Your task to perform on an android device: change the clock display to show seconds Image 0: 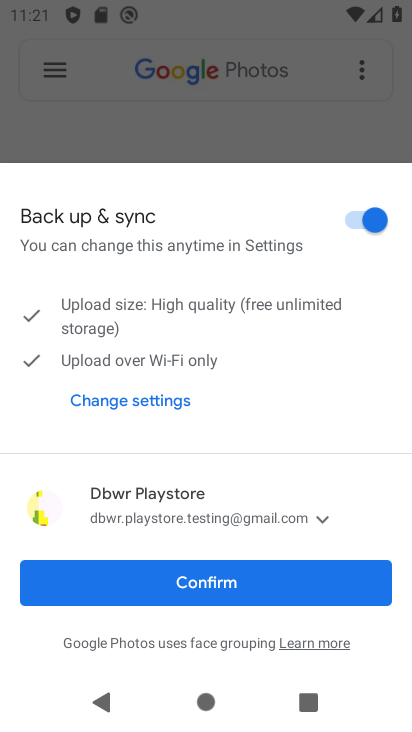
Step 0: press home button
Your task to perform on an android device: change the clock display to show seconds Image 1: 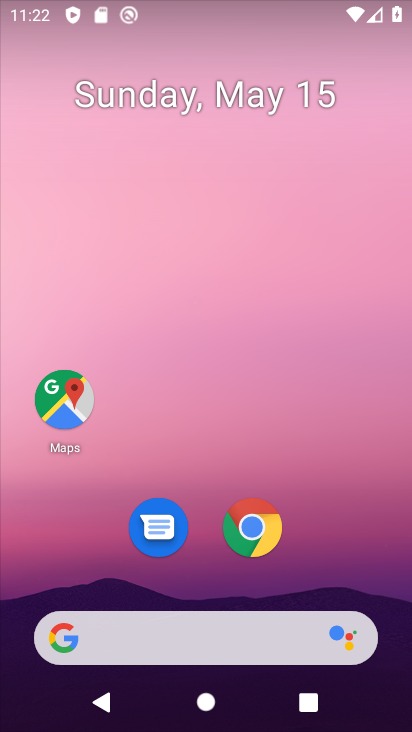
Step 1: drag from (360, 556) to (371, 167)
Your task to perform on an android device: change the clock display to show seconds Image 2: 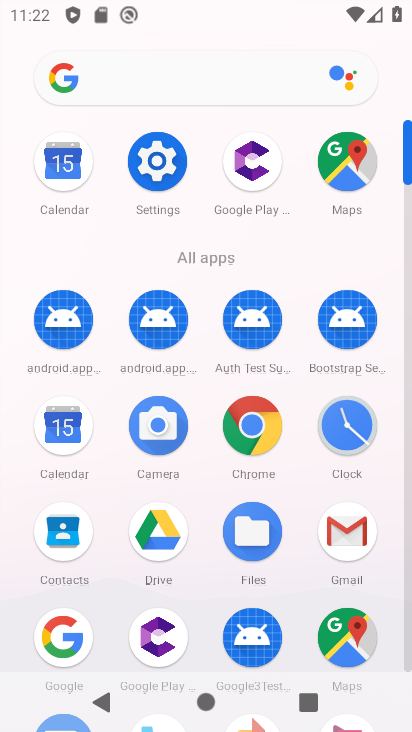
Step 2: click (350, 440)
Your task to perform on an android device: change the clock display to show seconds Image 3: 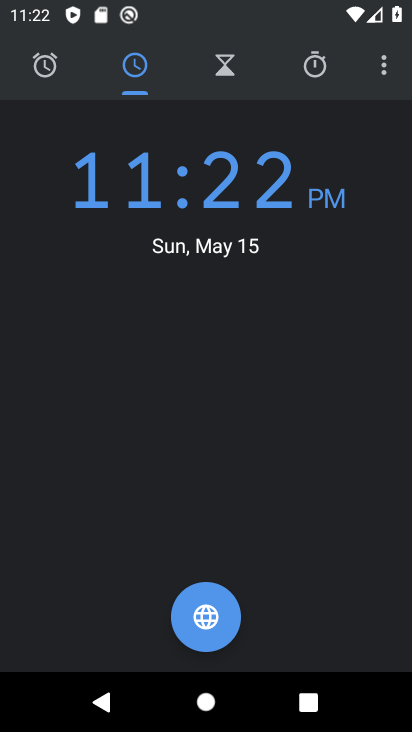
Step 3: click (376, 75)
Your task to perform on an android device: change the clock display to show seconds Image 4: 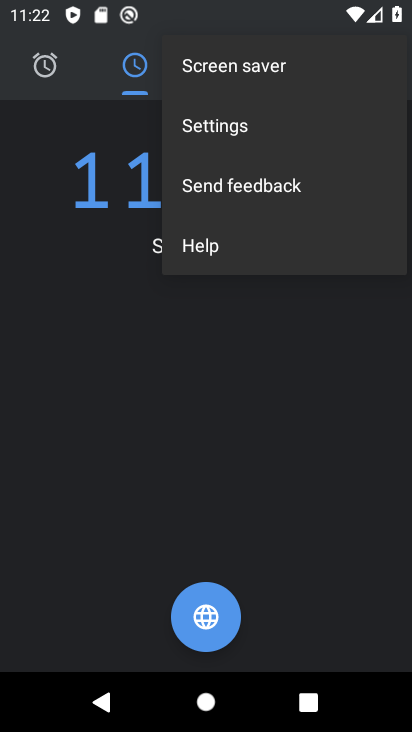
Step 4: click (295, 113)
Your task to perform on an android device: change the clock display to show seconds Image 5: 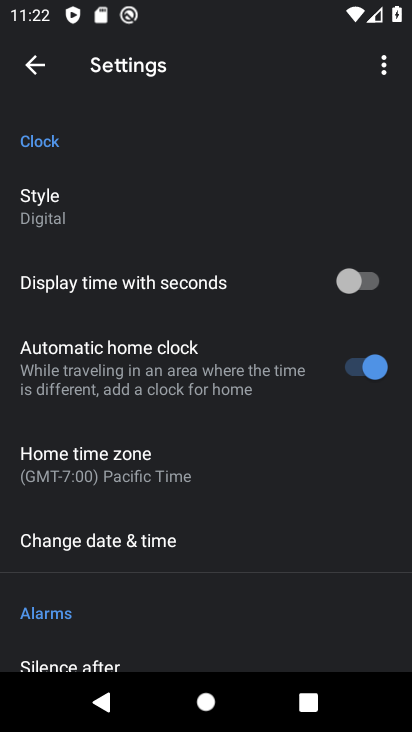
Step 5: click (86, 193)
Your task to perform on an android device: change the clock display to show seconds Image 6: 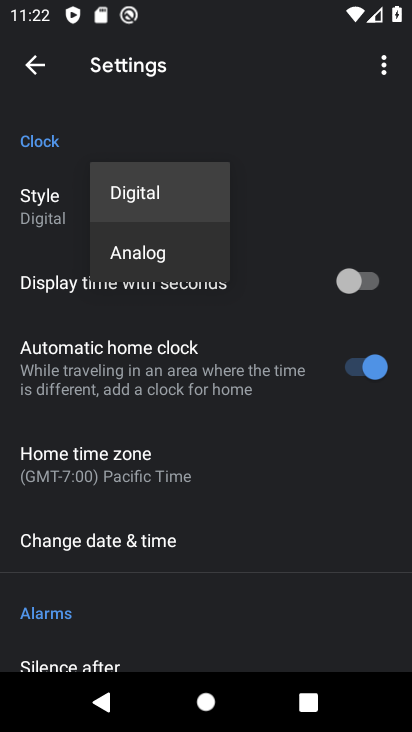
Step 6: click (224, 121)
Your task to perform on an android device: change the clock display to show seconds Image 7: 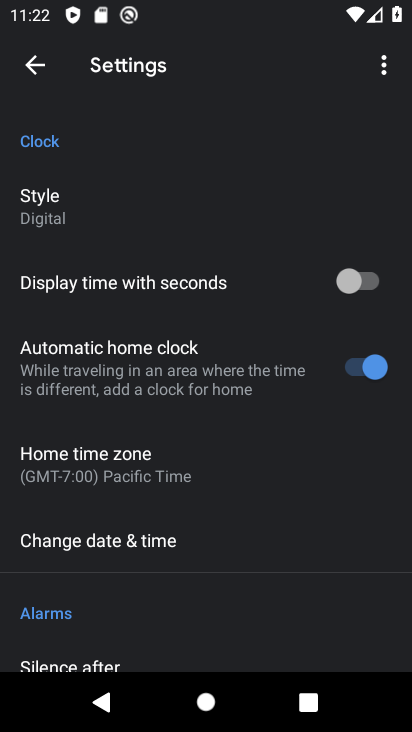
Step 7: click (344, 263)
Your task to perform on an android device: change the clock display to show seconds Image 8: 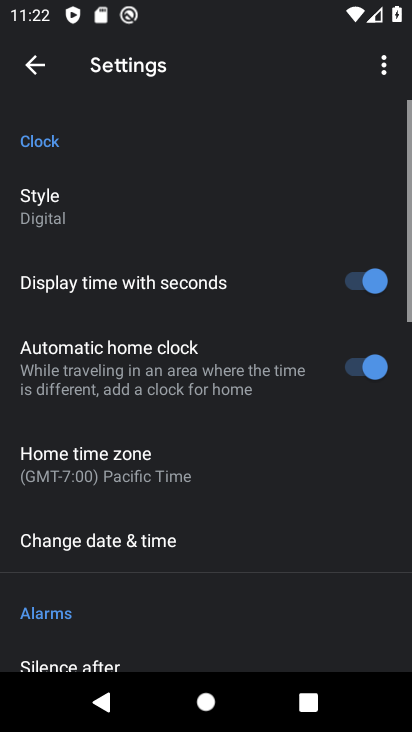
Step 8: task complete